Your task to perform on an android device: Show the shopping cart on amazon. Add "razer huntsman" to the cart on amazon, then select checkout. Image 0: 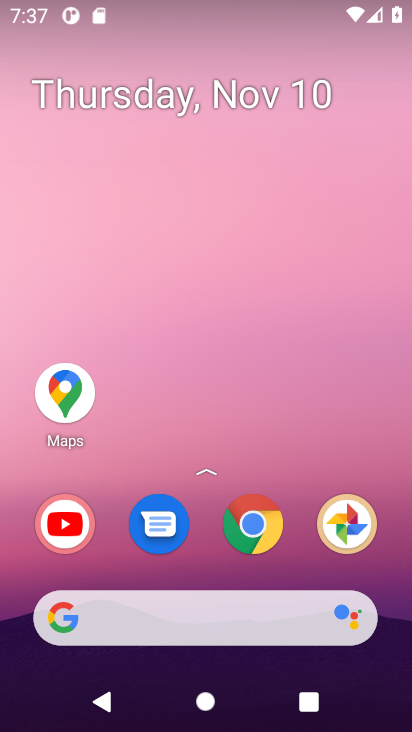
Step 0: click (261, 540)
Your task to perform on an android device: Show the shopping cart on amazon. Add "razer huntsman" to the cart on amazon, then select checkout. Image 1: 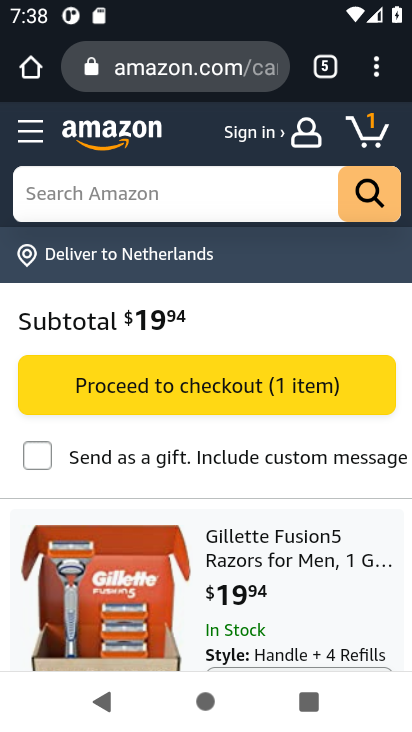
Step 1: click (44, 197)
Your task to perform on an android device: Show the shopping cart on amazon. Add "razer huntsman" to the cart on amazon, then select checkout. Image 2: 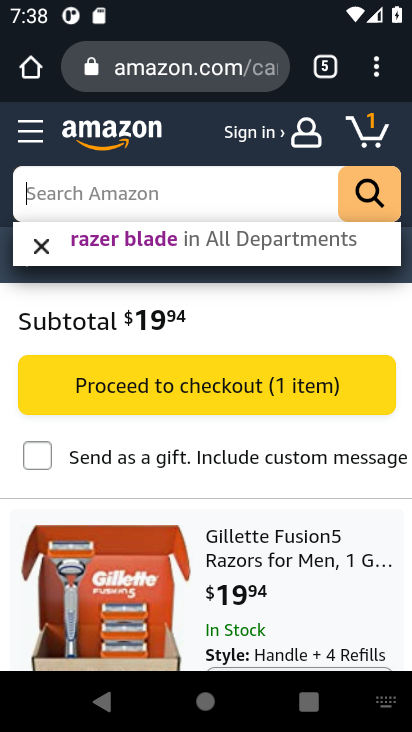
Step 2: type "razer huntsman"
Your task to perform on an android device: Show the shopping cart on amazon. Add "razer huntsman" to the cart on amazon, then select checkout. Image 3: 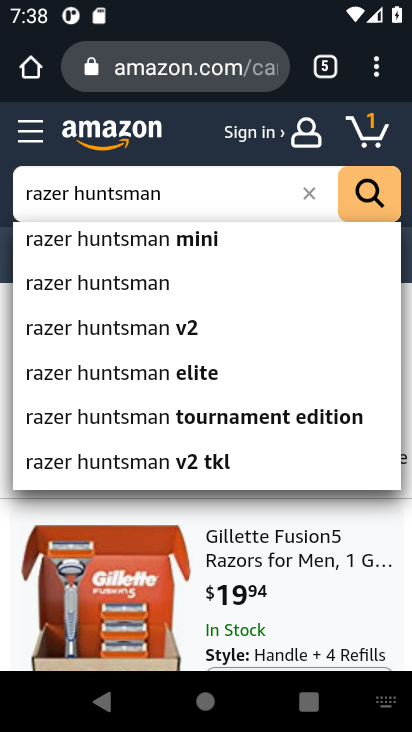
Step 3: click (104, 287)
Your task to perform on an android device: Show the shopping cart on amazon. Add "razer huntsman" to the cart on amazon, then select checkout. Image 4: 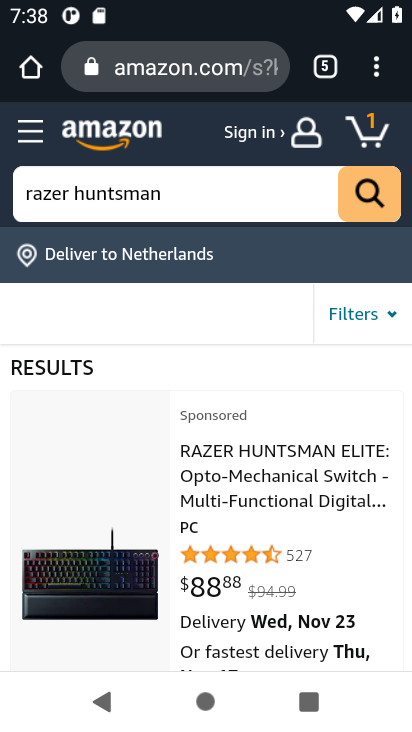
Step 4: click (305, 488)
Your task to perform on an android device: Show the shopping cart on amazon. Add "razer huntsman" to the cart on amazon, then select checkout. Image 5: 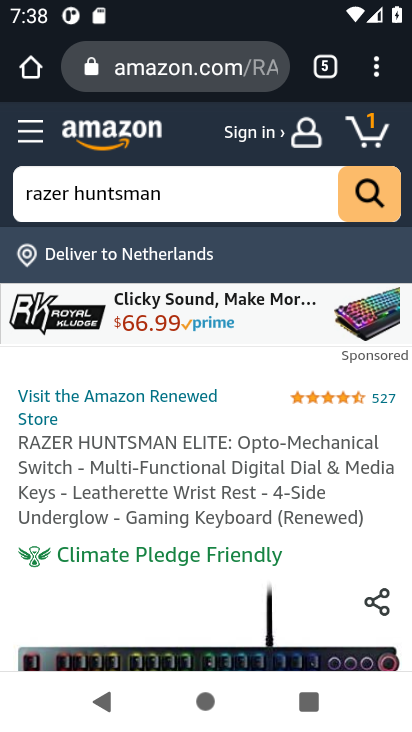
Step 5: drag from (319, 545) to (358, 162)
Your task to perform on an android device: Show the shopping cart on amazon. Add "razer huntsman" to the cart on amazon, then select checkout. Image 6: 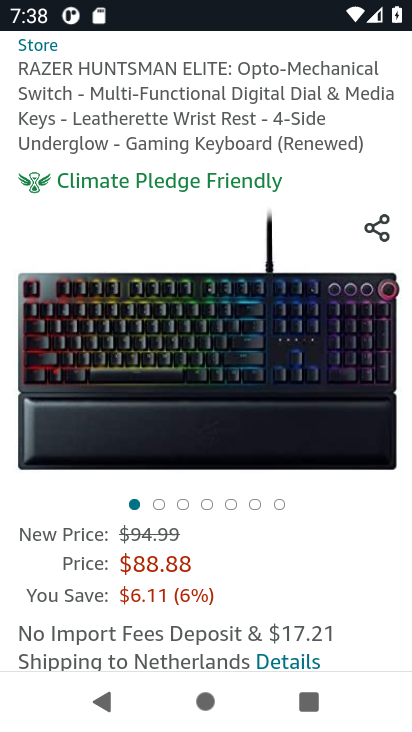
Step 6: drag from (254, 603) to (242, 176)
Your task to perform on an android device: Show the shopping cart on amazon. Add "razer huntsman" to the cart on amazon, then select checkout. Image 7: 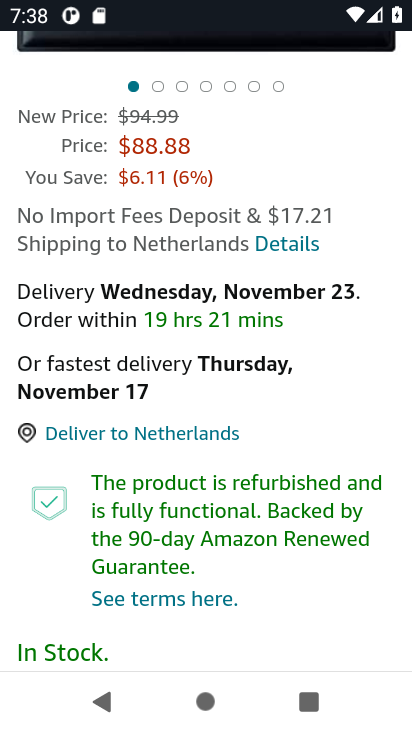
Step 7: drag from (247, 382) to (278, 125)
Your task to perform on an android device: Show the shopping cart on amazon. Add "razer huntsman" to the cart on amazon, then select checkout. Image 8: 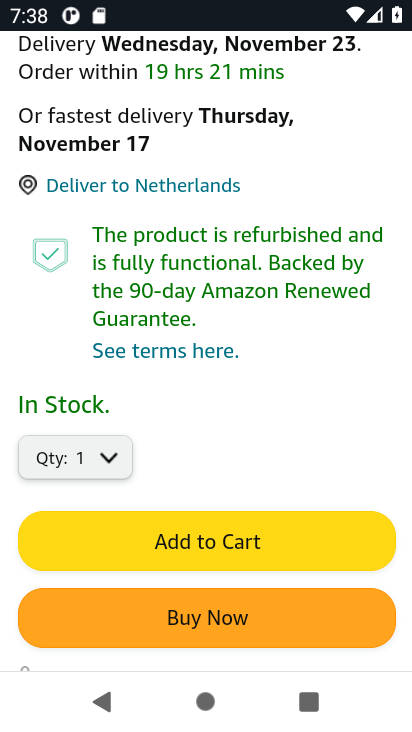
Step 8: click (172, 536)
Your task to perform on an android device: Show the shopping cart on amazon. Add "razer huntsman" to the cart on amazon, then select checkout. Image 9: 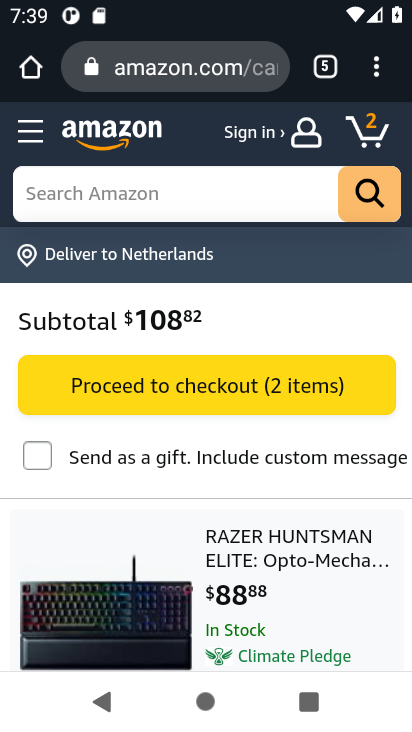
Step 9: click (250, 358)
Your task to perform on an android device: Show the shopping cart on amazon. Add "razer huntsman" to the cart on amazon, then select checkout. Image 10: 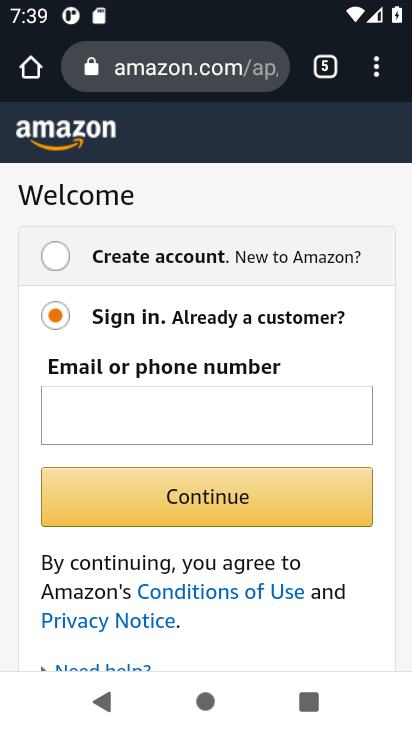
Step 10: task complete